Your task to perform on an android device: Clear the cart on target.com. Image 0: 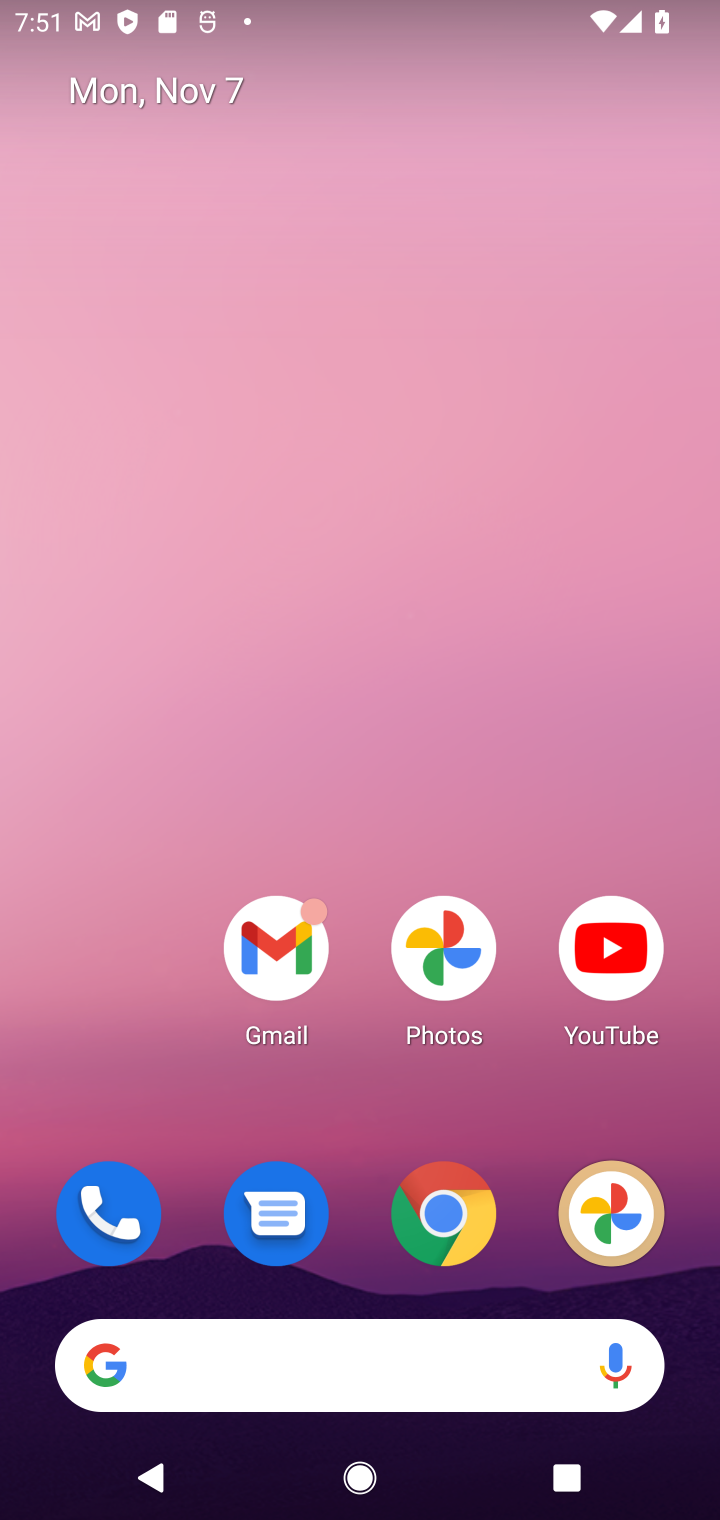
Step 0: click (457, 1225)
Your task to perform on an android device: Clear the cart on target.com. Image 1: 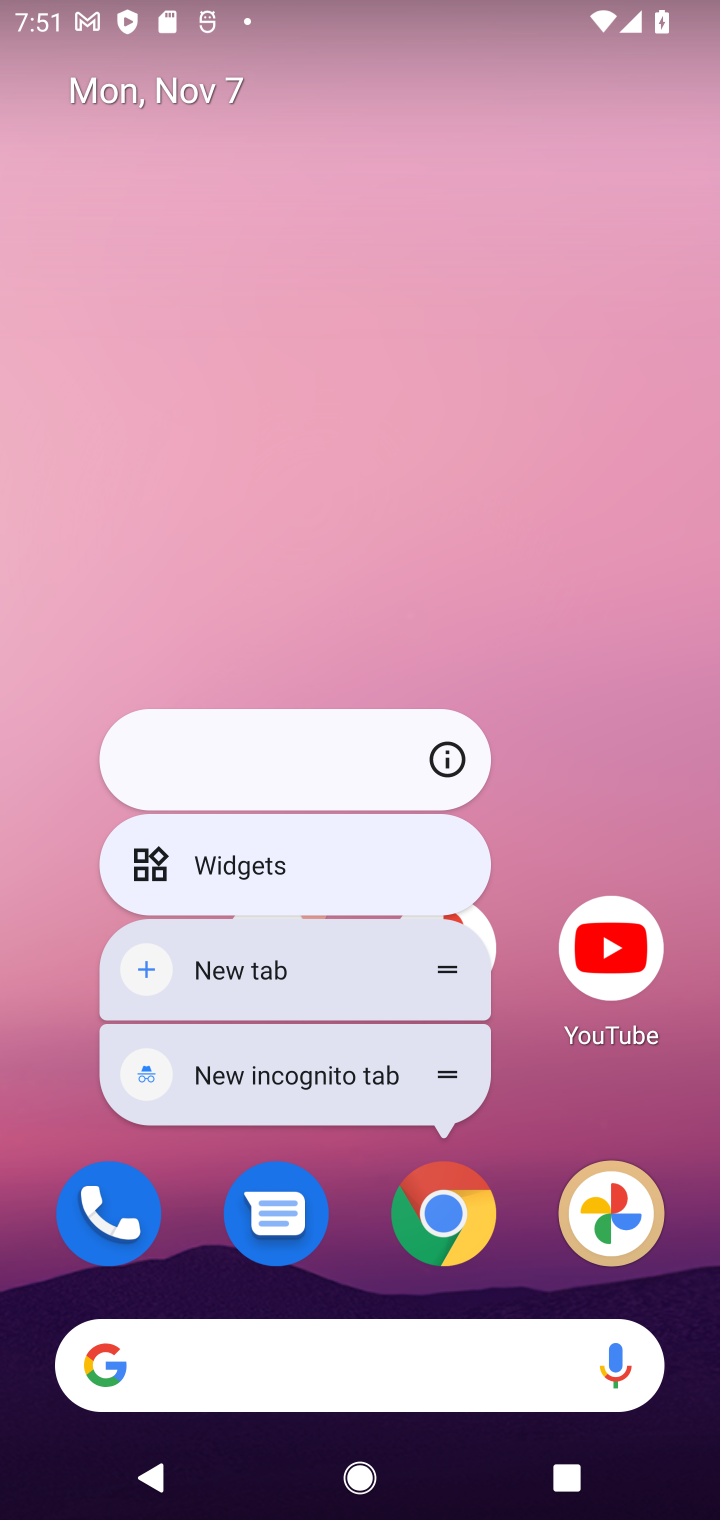
Step 1: click (457, 1225)
Your task to perform on an android device: Clear the cart on target.com. Image 2: 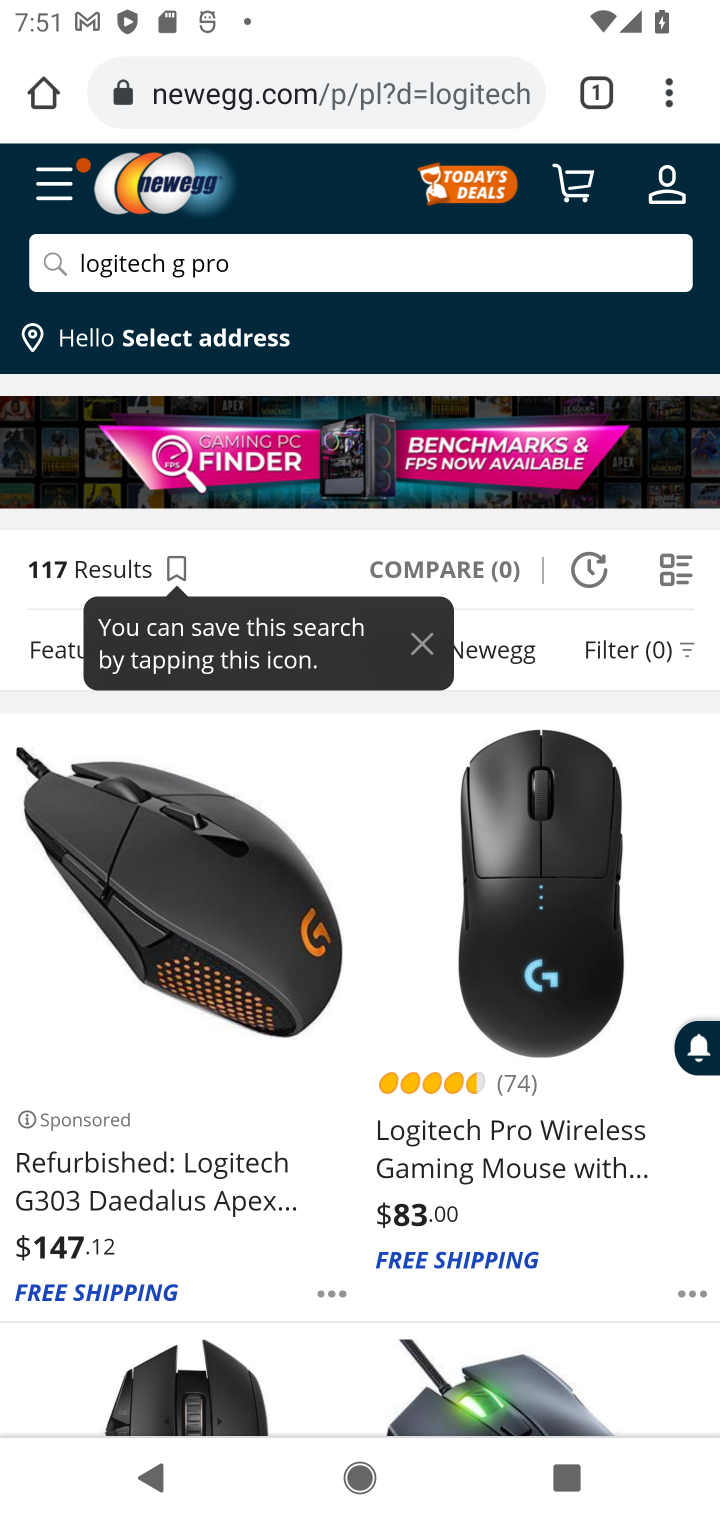
Step 2: click (286, 106)
Your task to perform on an android device: Clear the cart on target.com. Image 3: 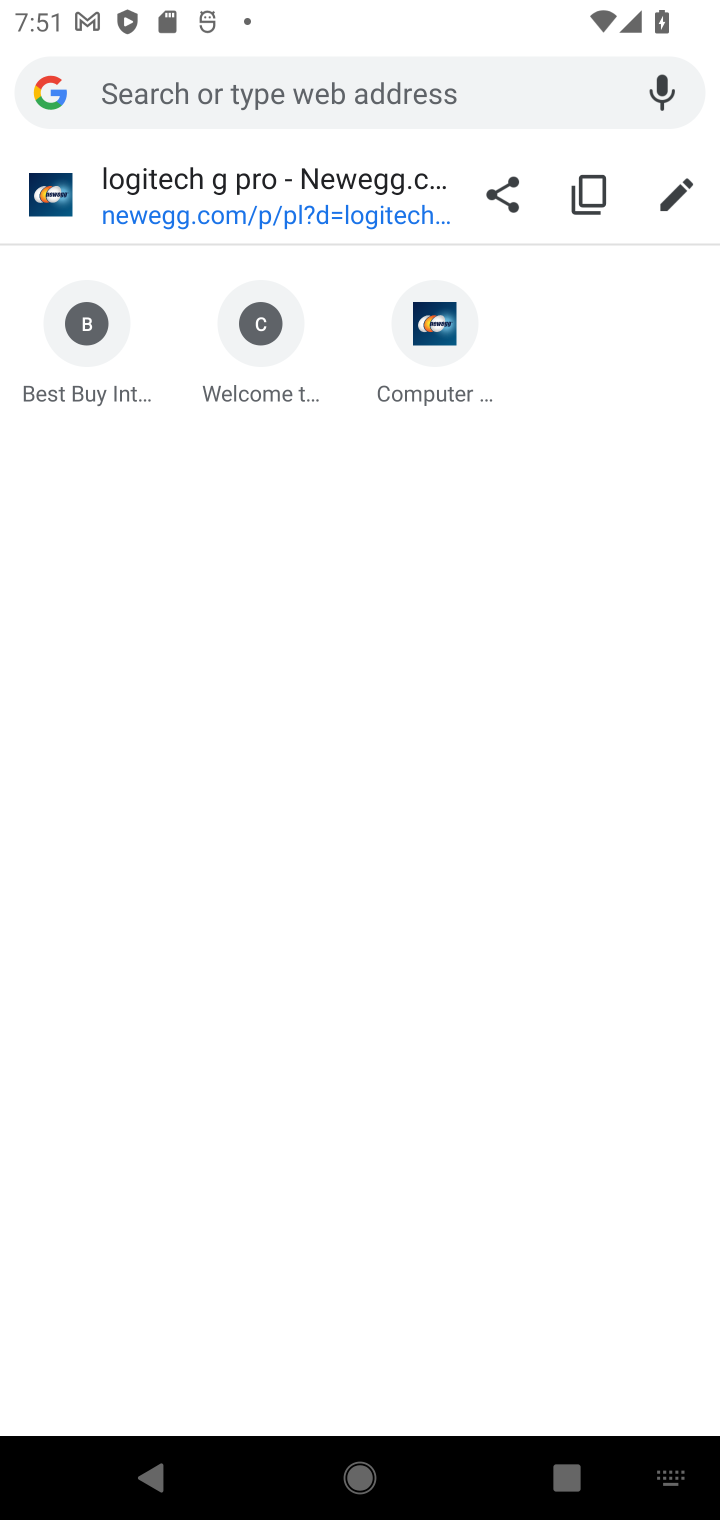
Step 3: type "target.com"
Your task to perform on an android device: Clear the cart on target.com. Image 4: 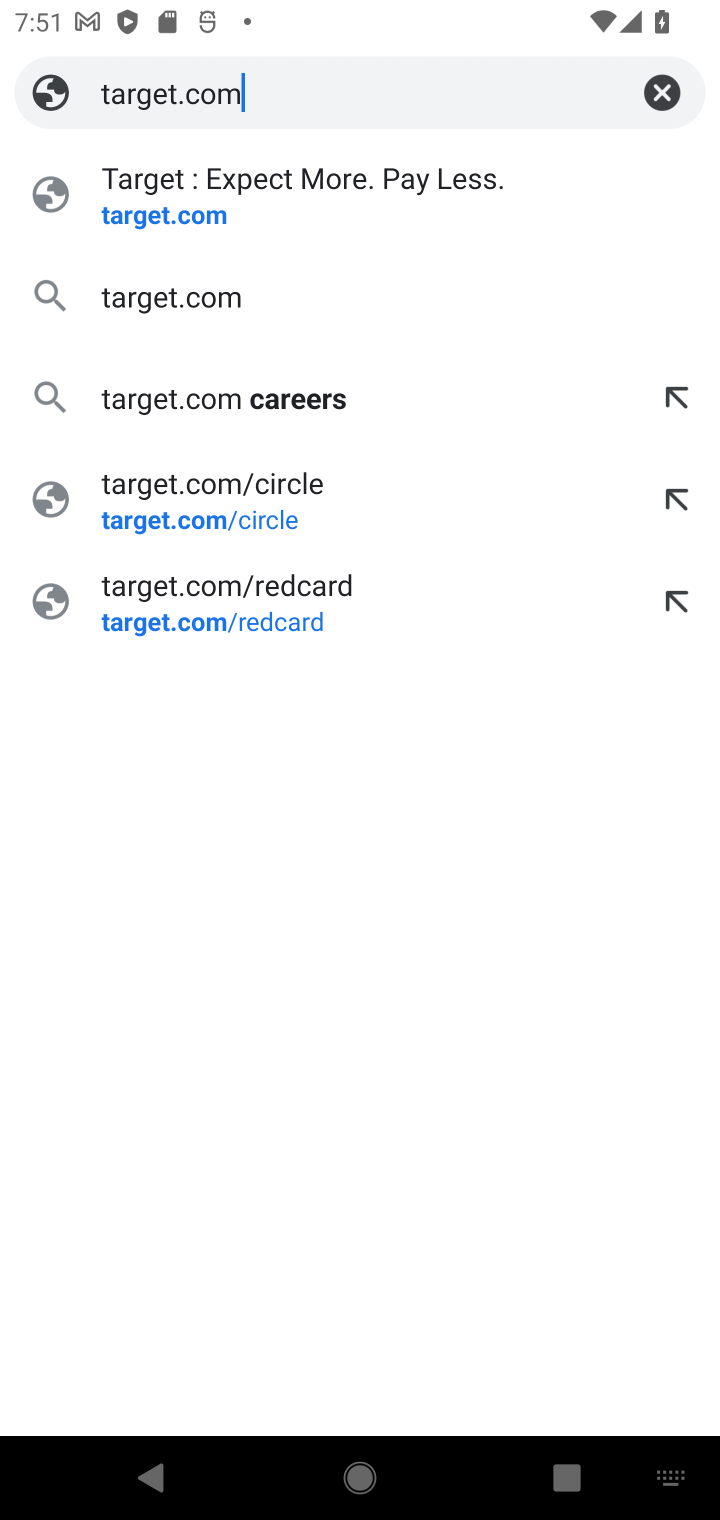
Step 4: click (196, 195)
Your task to perform on an android device: Clear the cart on target.com. Image 5: 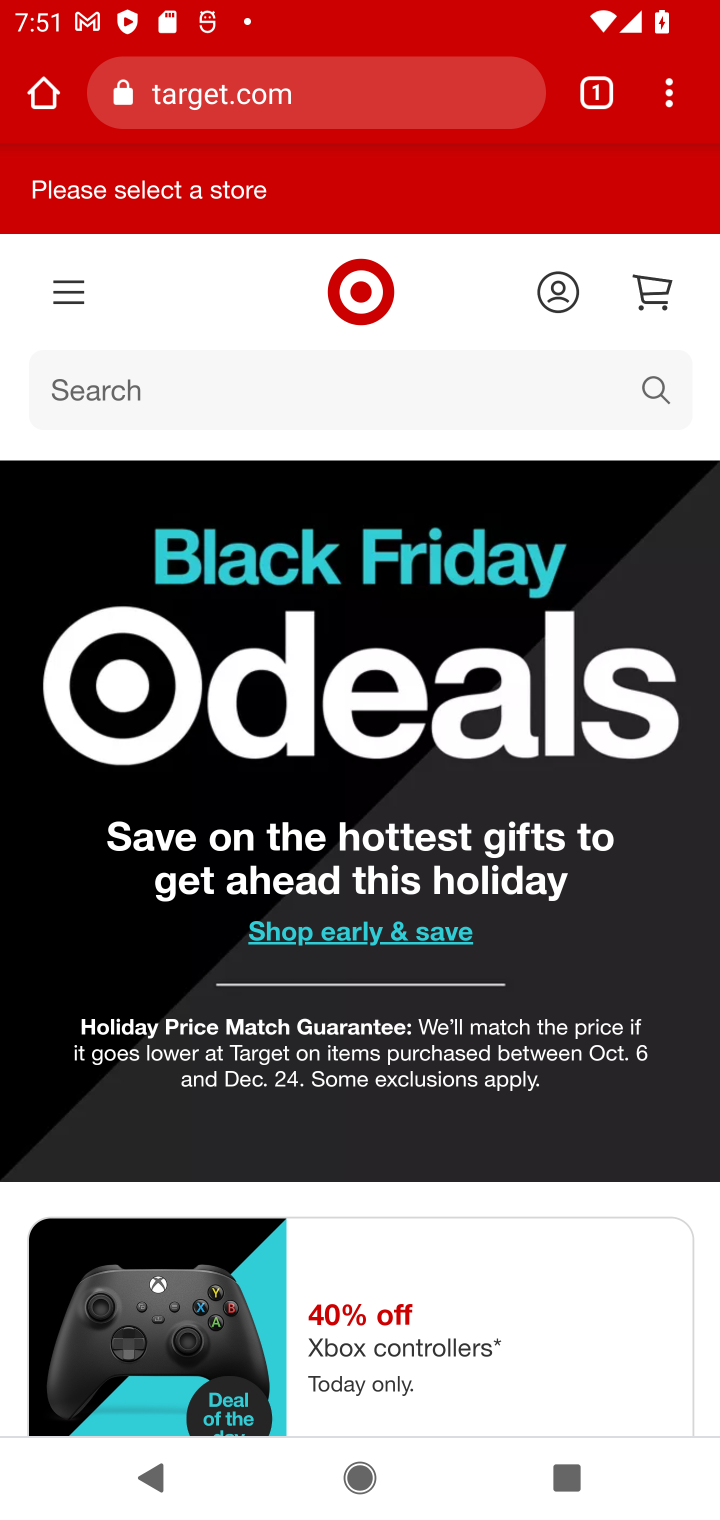
Step 5: click (653, 307)
Your task to perform on an android device: Clear the cart on target.com. Image 6: 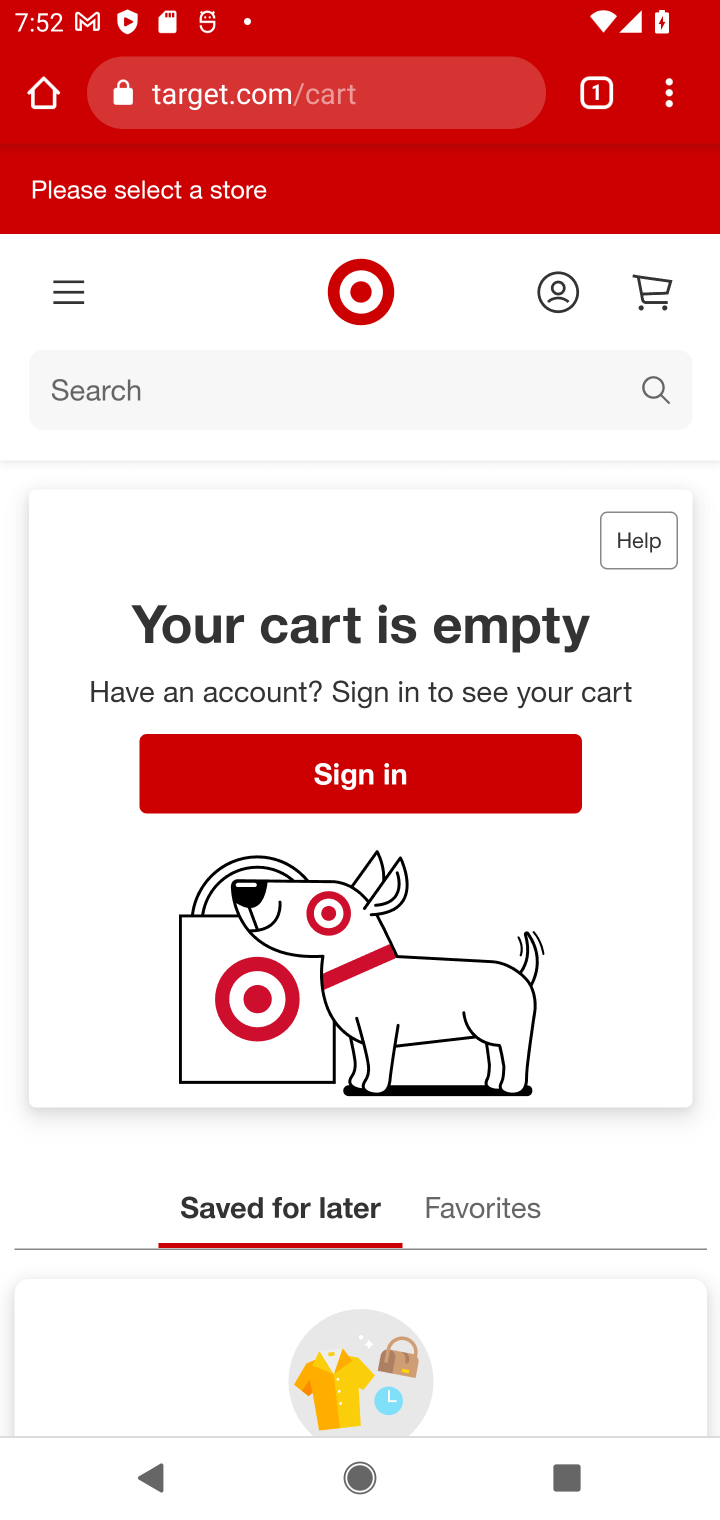
Step 6: task complete